Your task to perform on an android device: turn on airplane mode Image 0: 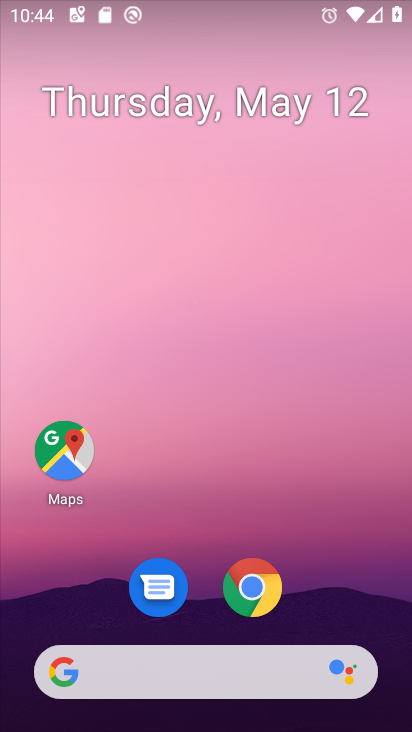
Step 0: drag from (274, 14) to (302, 493)
Your task to perform on an android device: turn on airplane mode Image 1: 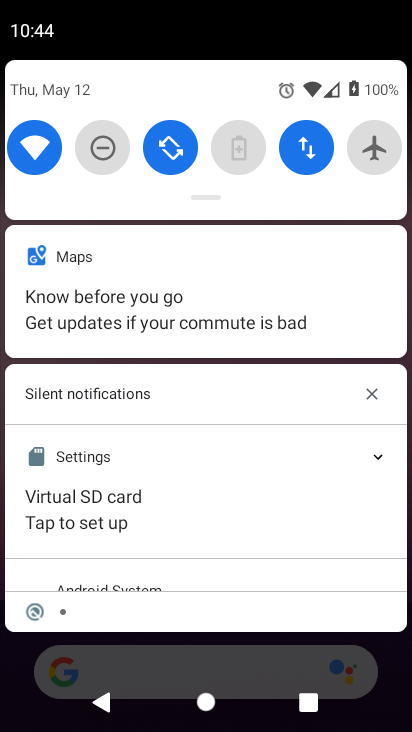
Step 1: click (385, 138)
Your task to perform on an android device: turn on airplane mode Image 2: 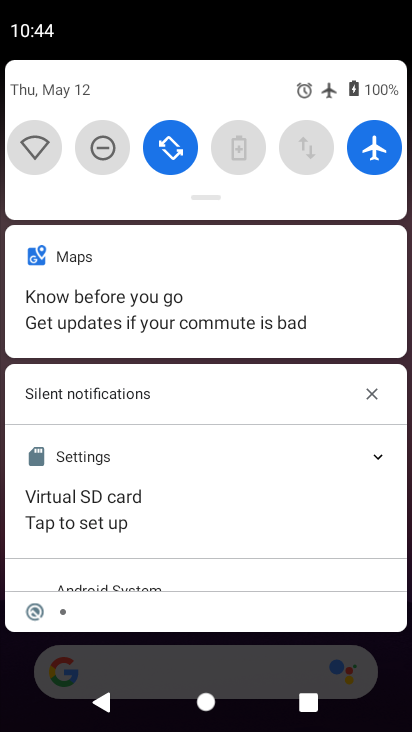
Step 2: task complete